Your task to perform on an android device: turn off notifications settings in the gmail app Image 0: 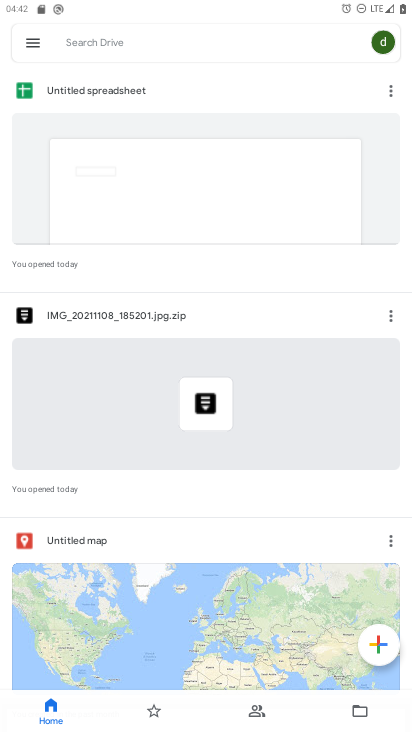
Step 0: press home button
Your task to perform on an android device: turn off notifications settings in the gmail app Image 1: 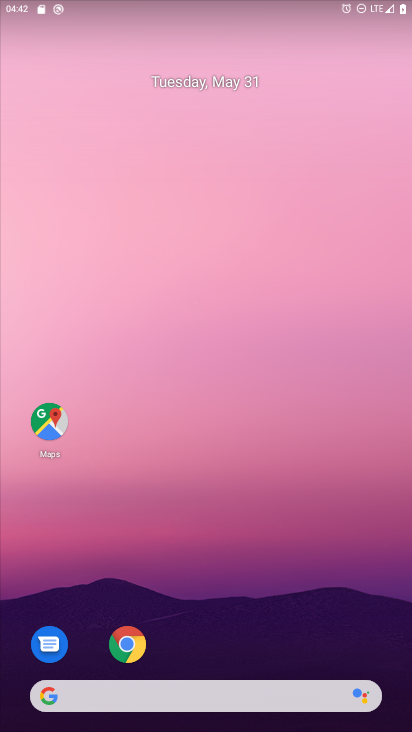
Step 1: drag from (263, 617) to (241, 108)
Your task to perform on an android device: turn off notifications settings in the gmail app Image 2: 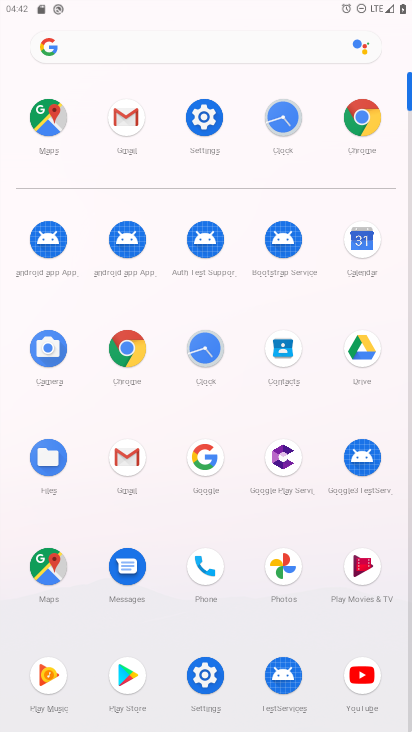
Step 2: click (127, 120)
Your task to perform on an android device: turn off notifications settings in the gmail app Image 3: 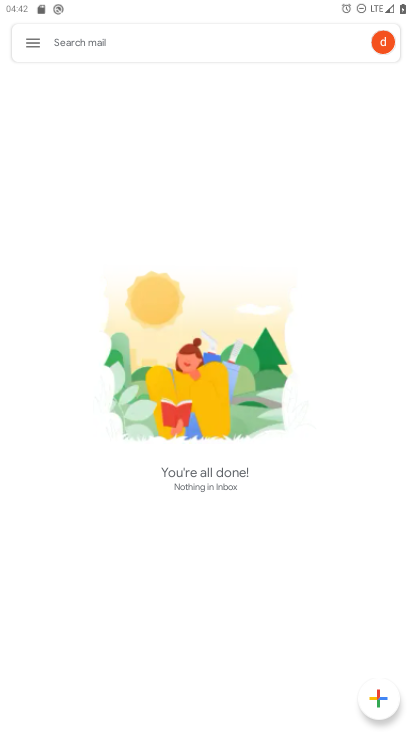
Step 3: click (41, 44)
Your task to perform on an android device: turn off notifications settings in the gmail app Image 4: 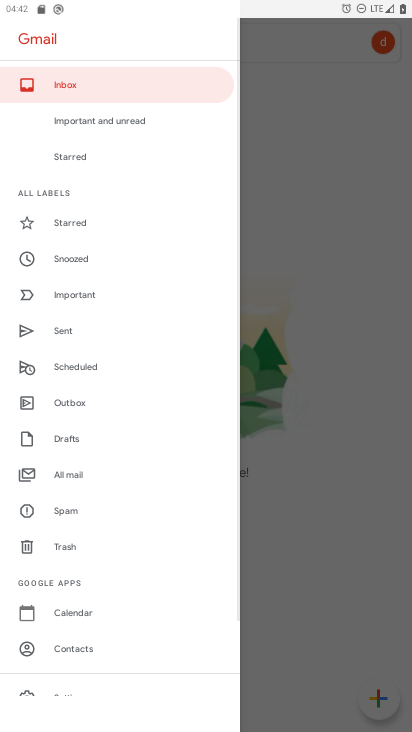
Step 4: drag from (80, 651) to (149, 301)
Your task to perform on an android device: turn off notifications settings in the gmail app Image 5: 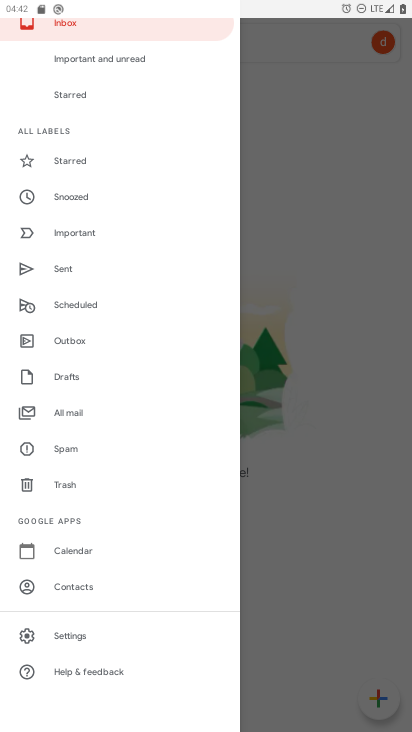
Step 5: click (57, 635)
Your task to perform on an android device: turn off notifications settings in the gmail app Image 6: 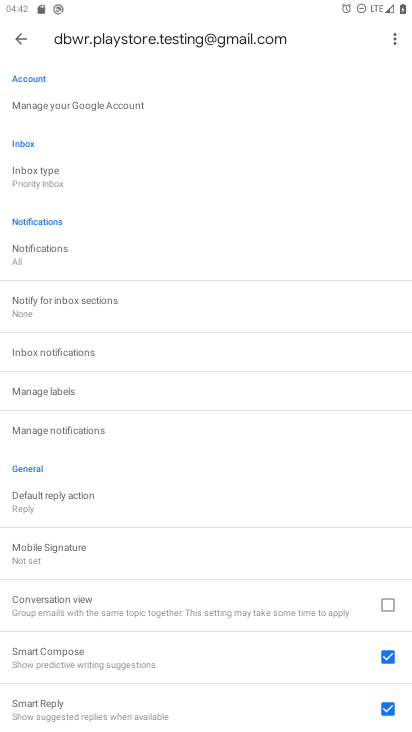
Step 6: click (76, 432)
Your task to perform on an android device: turn off notifications settings in the gmail app Image 7: 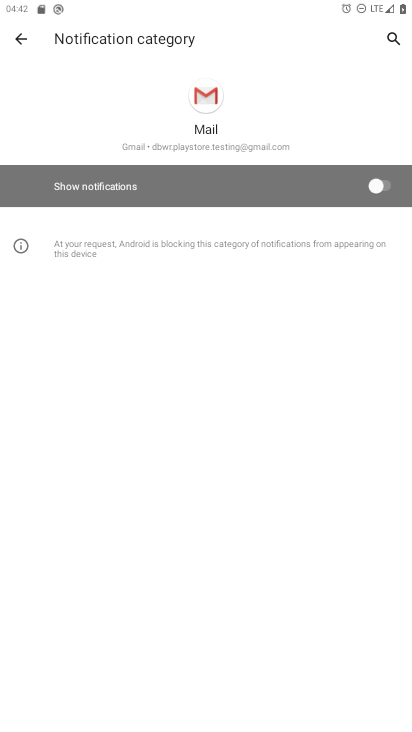
Step 7: task complete